Your task to perform on an android device: toggle location history Image 0: 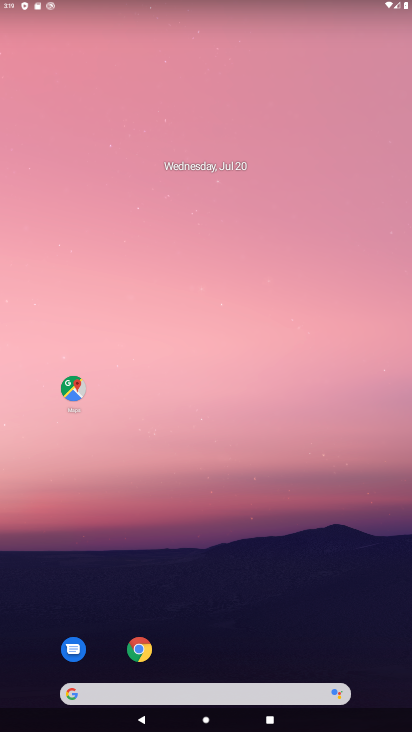
Step 0: drag from (270, 684) to (287, 335)
Your task to perform on an android device: toggle location history Image 1: 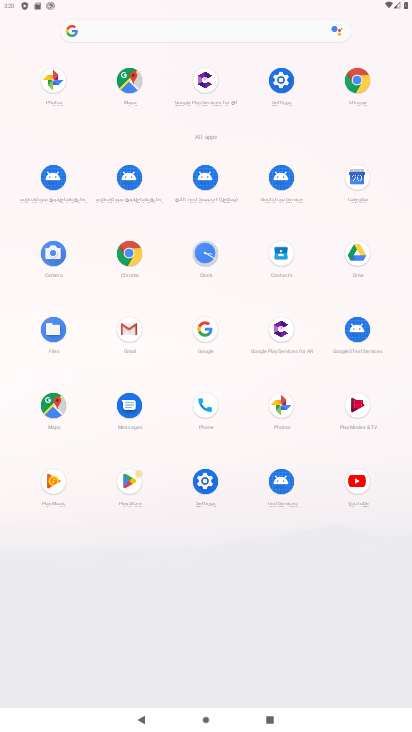
Step 1: click (286, 77)
Your task to perform on an android device: toggle location history Image 2: 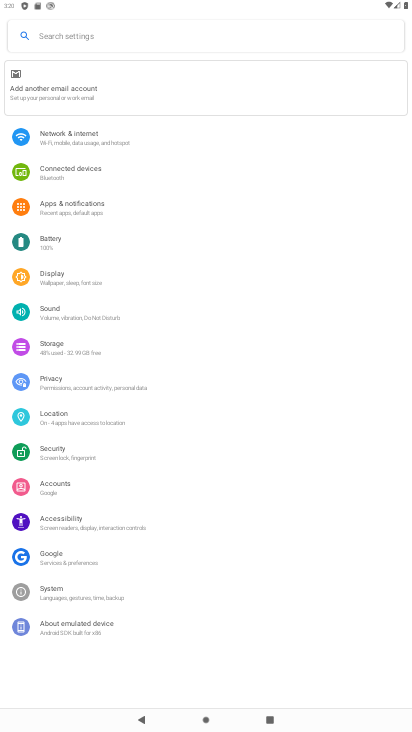
Step 2: click (98, 414)
Your task to perform on an android device: toggle location history Image 3: 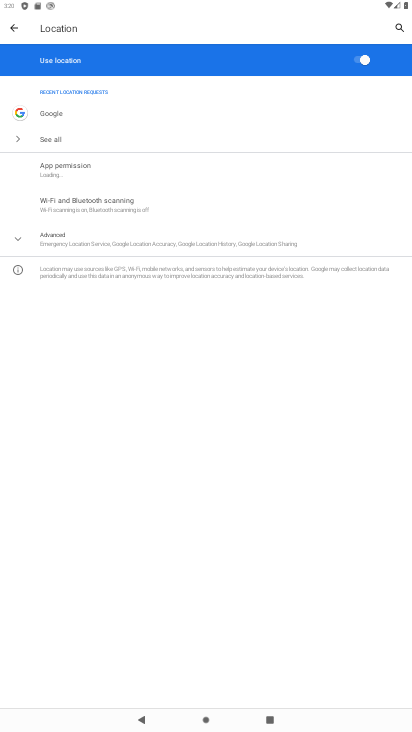
Step 3: click (69, 242)
Your task to perform on an android device: toggle location history Image 4: 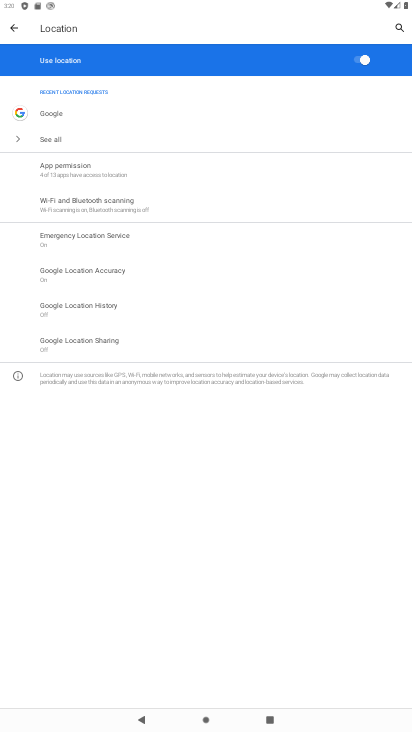
Step 4: click (100, 305)
Your task to perform on an android device: toggle location history Image 5: 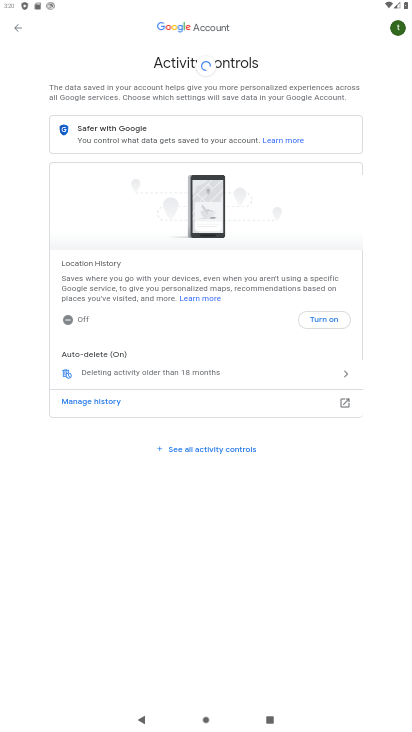
Step 5: click (331, 316)
Your task to perform on an android device: toggle location history Image 6: 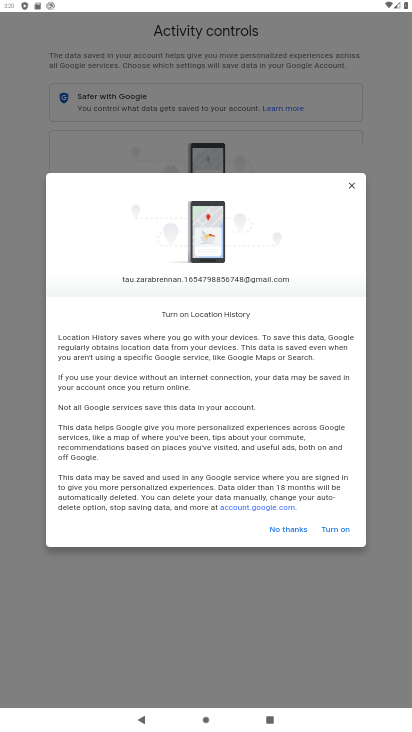
Step 6: click (346, 525)
Your task to perform on an android device: toggle location history Image 7: 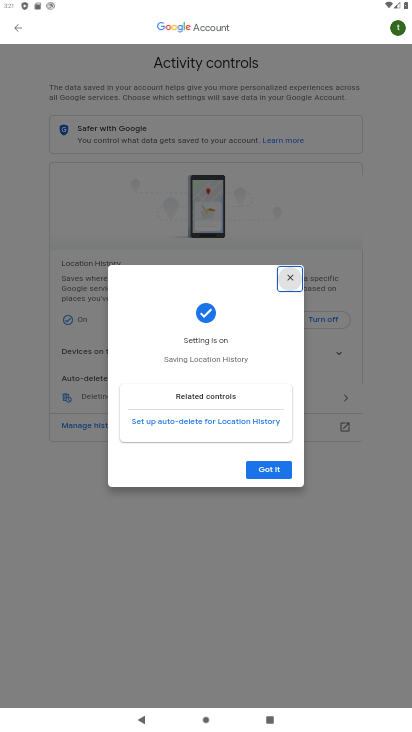
Step 7: click (280, 467)
Your task to perform on an android device: toggle location history Image 8: 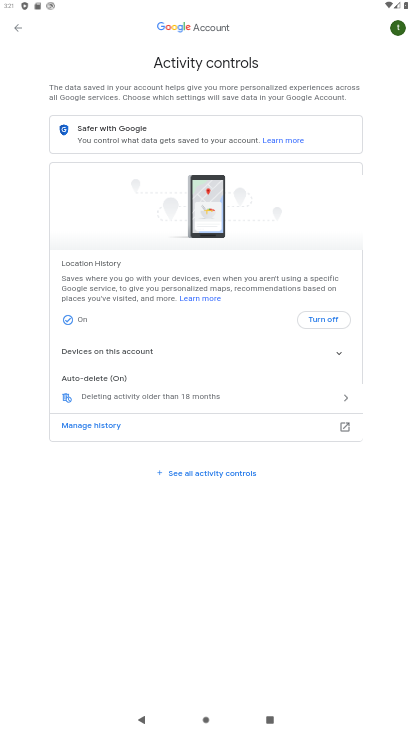
Step 8: task complete